Your task to perform on an android device: all mails in gmail Image 0: 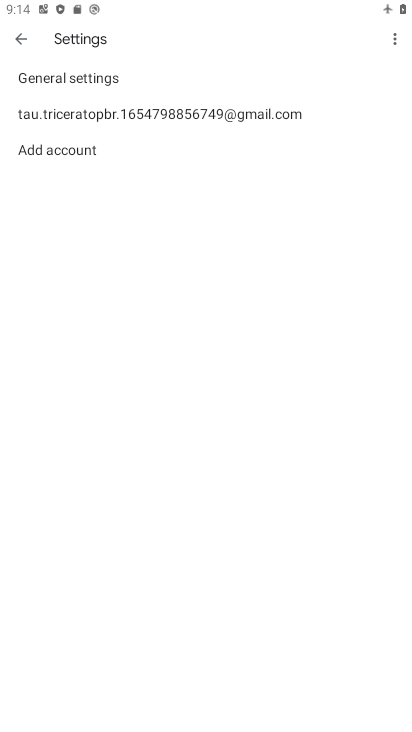
Step 0: press home button
Your task to perform on an android device: all mails in gmail Image 1: 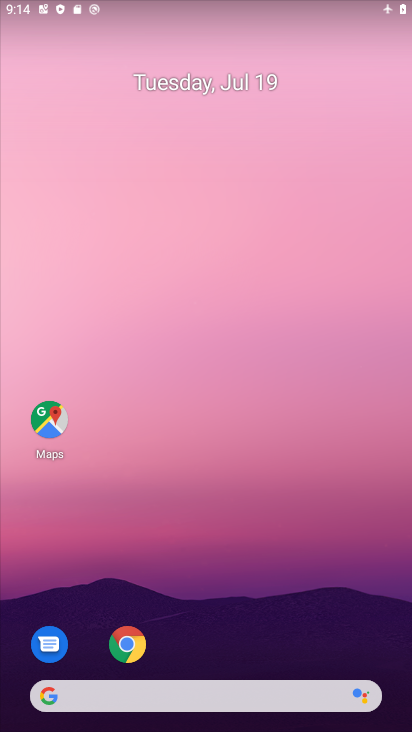
Step 1: drag from (238, 667) to (221, 380)
Your task to perform on an android device: all mails in gmail Image 2: 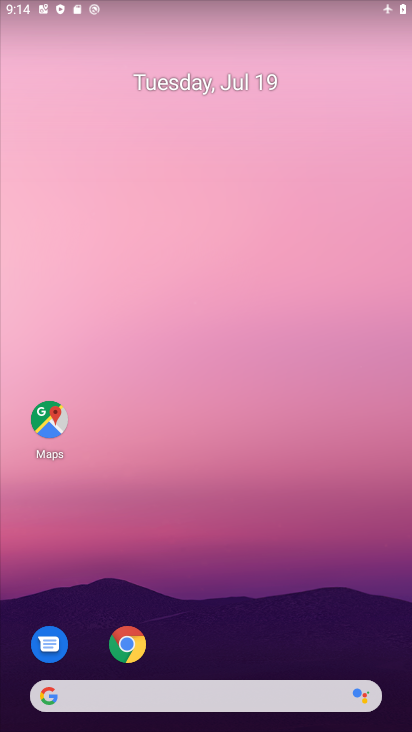
Step 2: drag from (198, 651) to (220, 44)
Your task to perform on an android device: all mails in gmail Image 3: 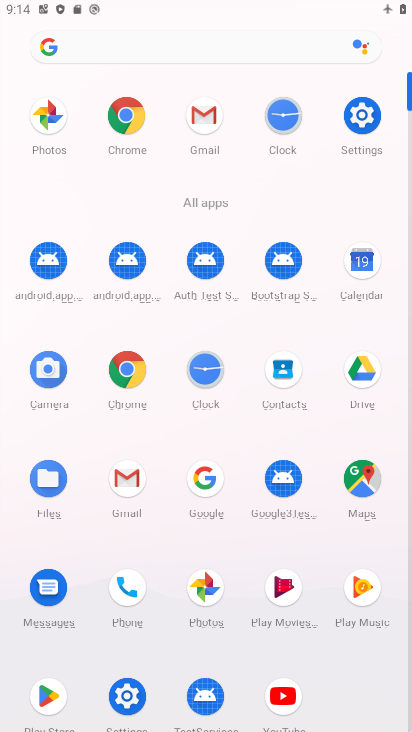
Step 3: click (125, 489)
Your task to perform on an android device: all mails in gmail Image 4: 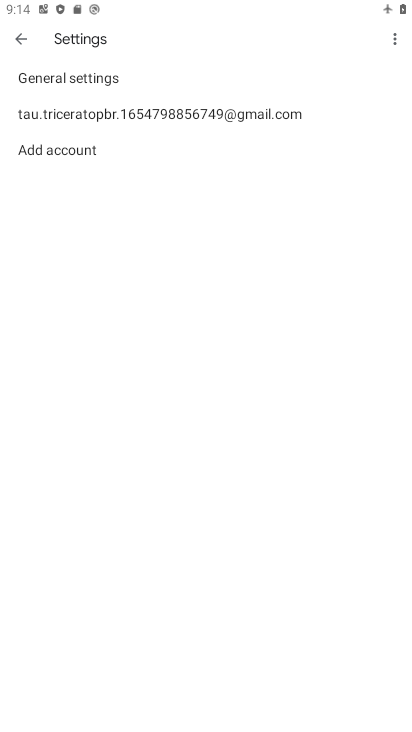
Step 4: click (17, 32)
Your task to perform on an android device: all mails in gmail Image 5: 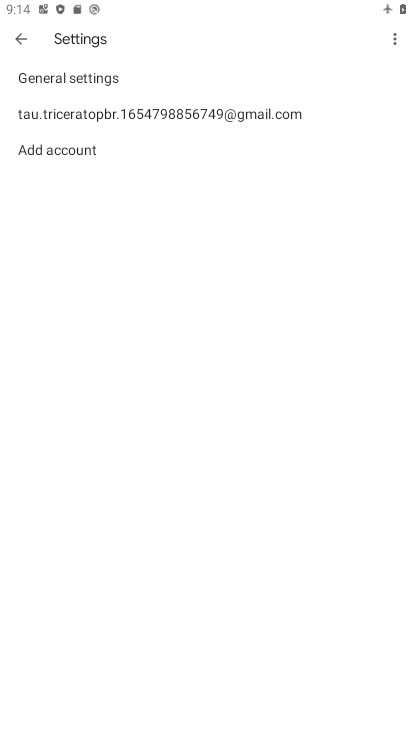
Step 5: click (17, 32)
Your task to perform on an android device: all mails in gmail Image 6: 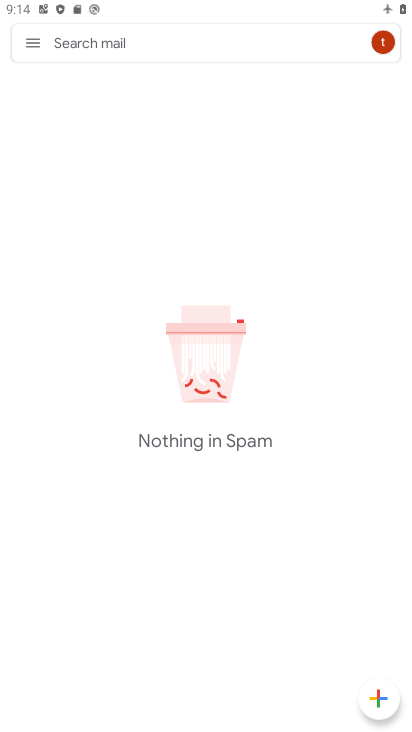
Step 6: click (29, 40)
Your task to perform on an android device: all mails in gmail Image 7: 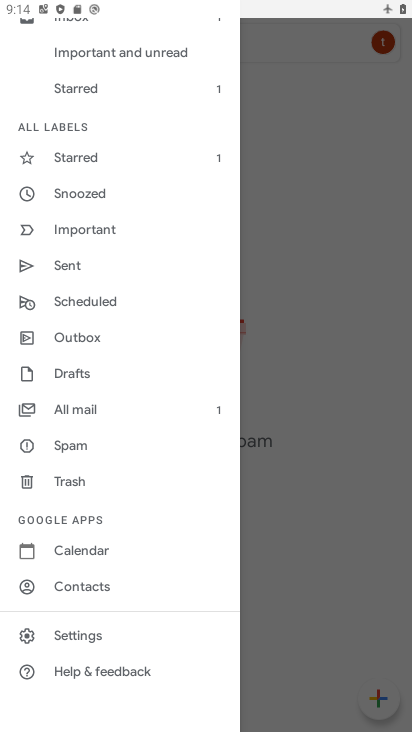
Step 7: click (82, 406)
Your task to perform on an android device: all mails in gmail Image 8: 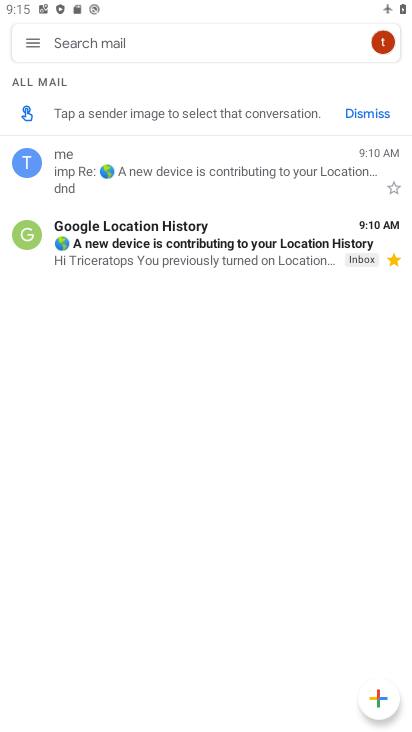
Step 8: task complete